Your task to perform on an android device: Go to Yahoo.com Image 0: 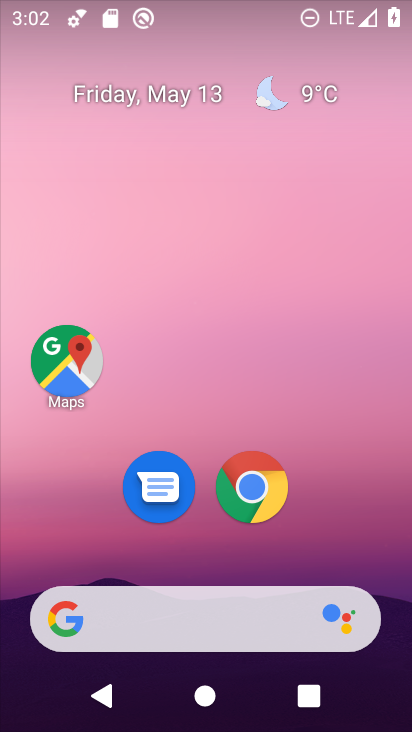
Step 0: click (260, 518)
Your task to perform on an android device: Go to Yahoo.com Image 1: 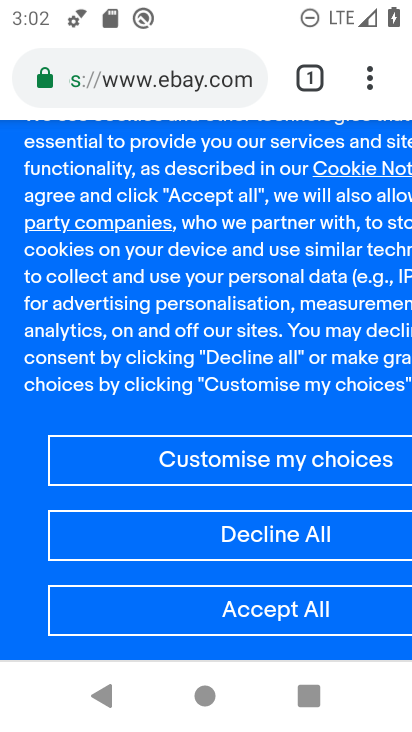
Step 1: click (177, 74)
Your task to perform on an android device: Go to Yahoo.com Image 2: 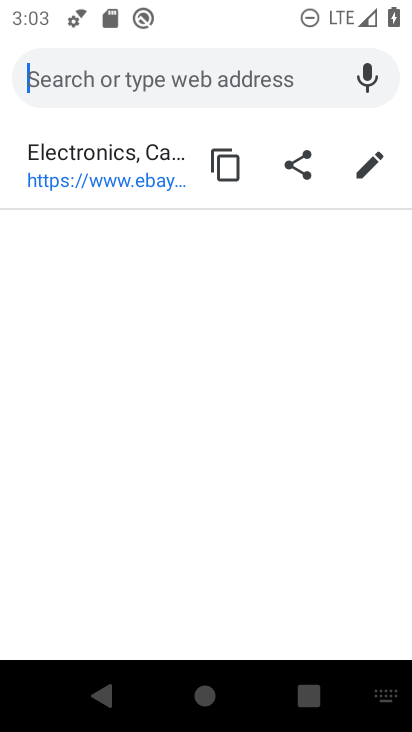
Step 2: type "yahoo.com"
Your task to perform on an android device: Go to Yahoo.com Image 3: 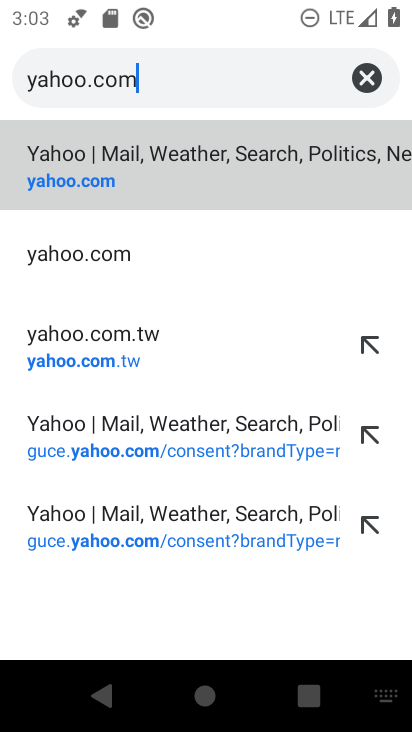
Step 3: click (166, 162)
Your task to perform on an android device: Go to Yahoo.com Image 4: 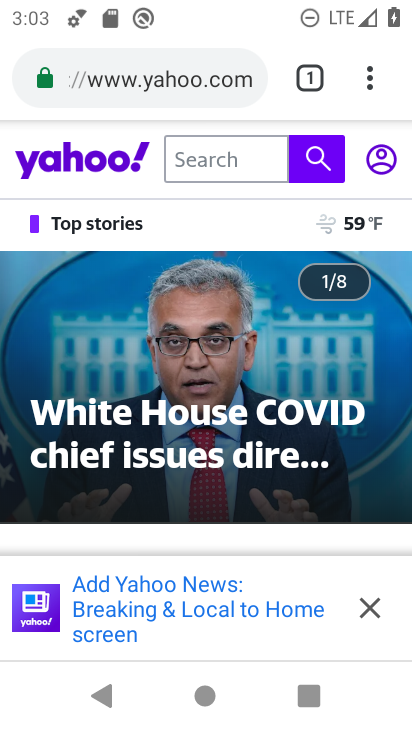
Step 4: task complete